Your task to perform on an android device: Open network settings Image 0: 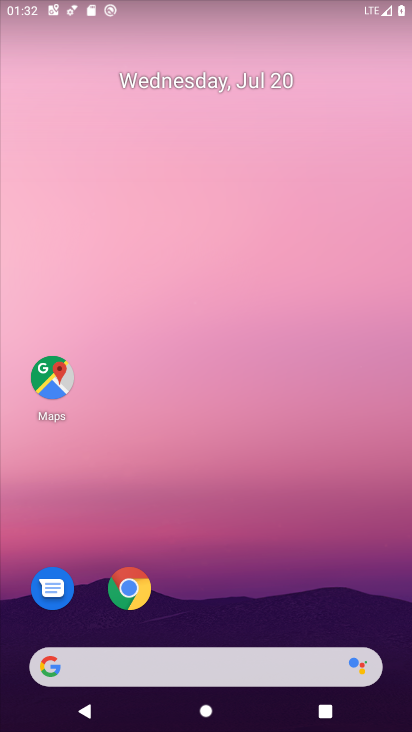
Step 0: drag from (307, 629) to (276, 294)
Your task to perform on an android device: Open network settings Image 1: 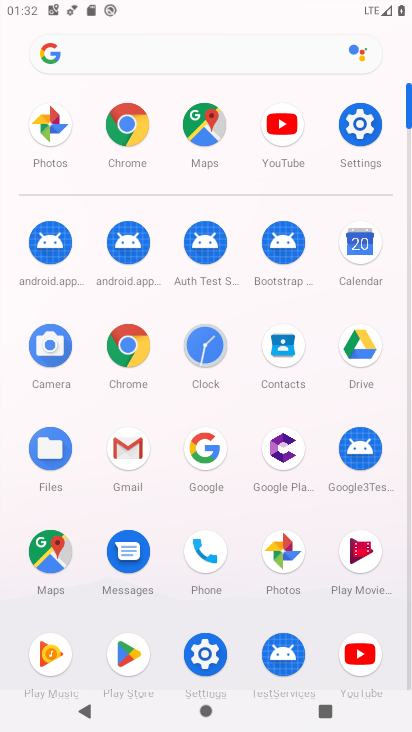
Step 1: click (348, 118)
Your task to perform on an android device: Open network settings Image 2: 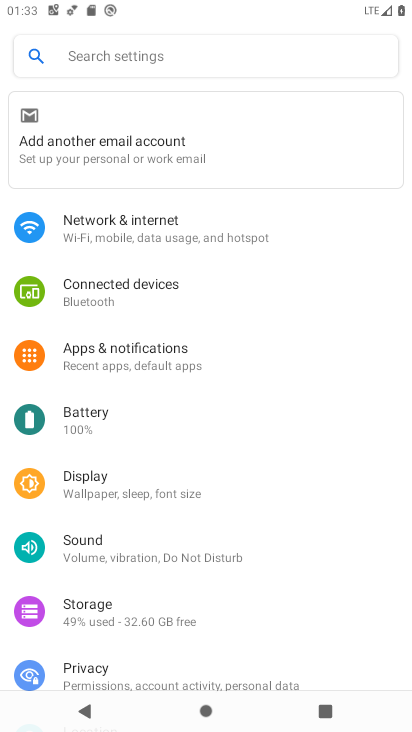
Step 2: click (160, 233)
Your task to perform on an android device: Open network settings Image 3: 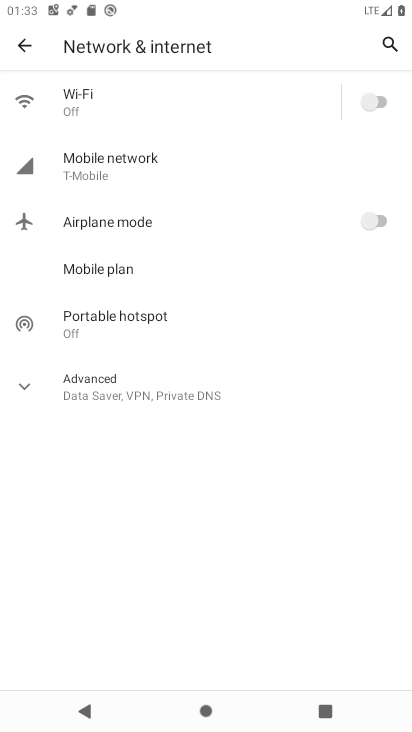
Step 3: task complete